Your task to perform on an android device: change your default location settings in chrome Image 0: 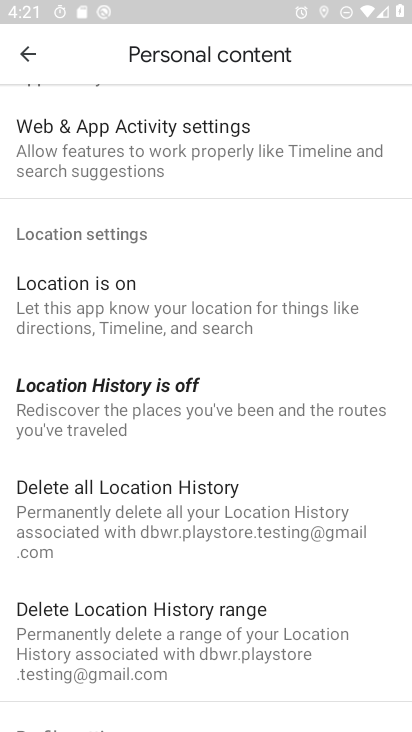
Step 0: press home button
Your task to perform on an android device: change your default location settings in chrome Image 1: 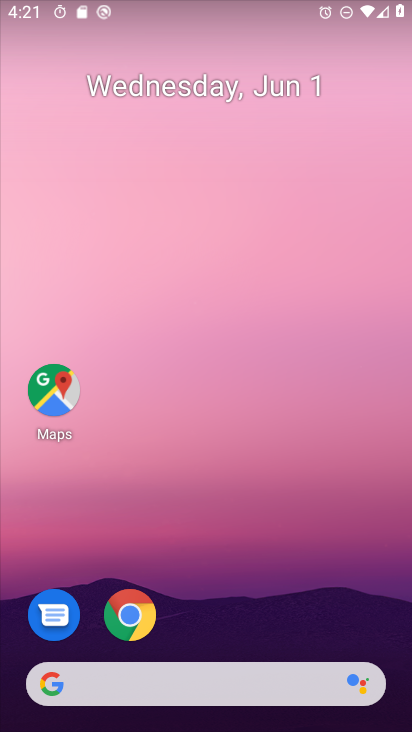
Step 1: drag from (251, 556) to (212, 171)
Your task to perform on an android device: change your default location settings in chrome Image 2: 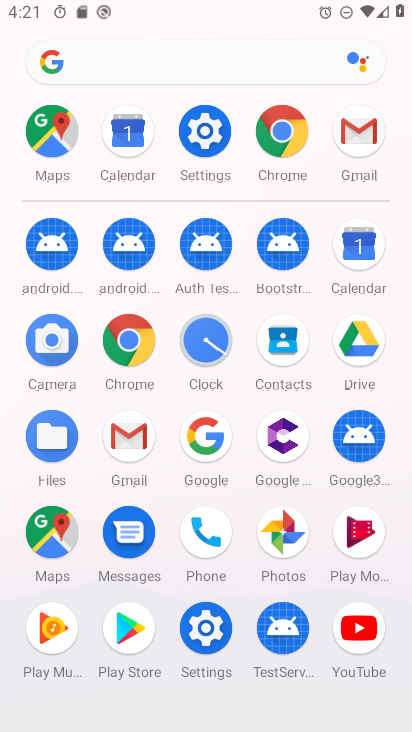
Step 2: click (284, 145)
Your task to perform on an android device: change your default location settings in chrome Image 3: 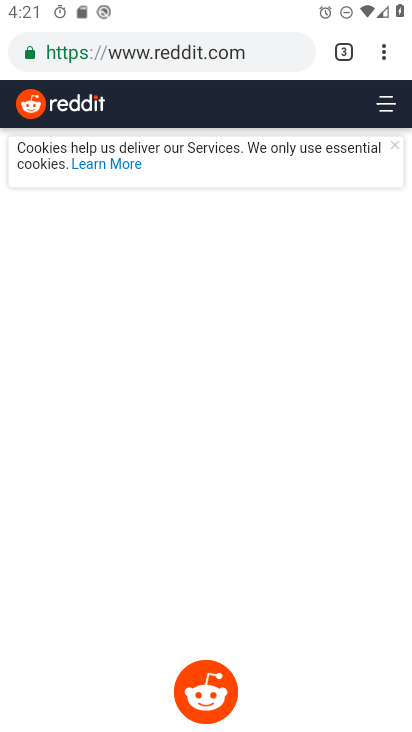
Step 3: click (383, 64)
Your task to perform on an android device: change your default location settings in chrome Image 4: 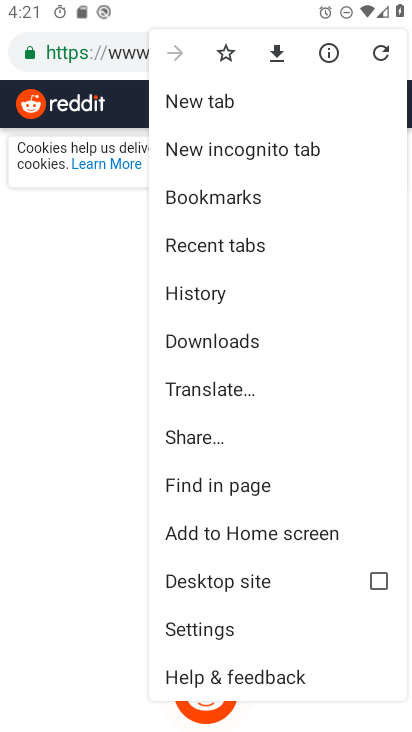
Step 4: click (238, 631)
Your task to perform on an android device: change your default location settings in chrome Image 5: 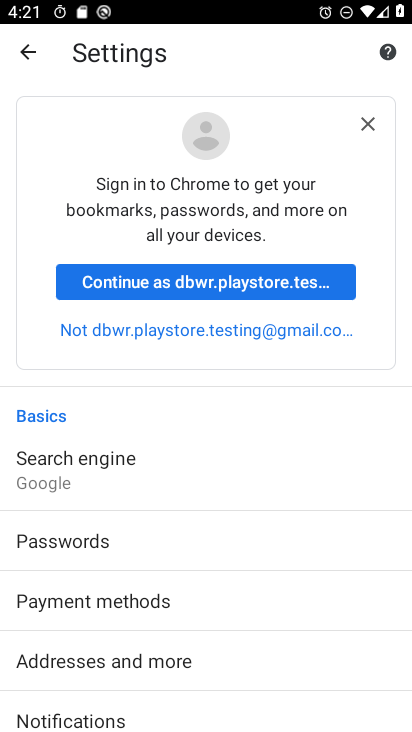
Step 5: drag from (237, 663) to (190, 358)
Your task to perform on an android device: change your default location settings in chrome Image 6: 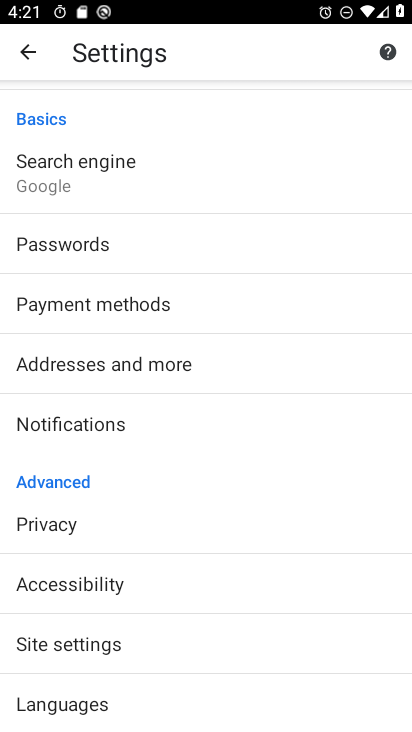
Step 6: drag from (233, 486) to (223, 217)
Your task to perform on an android device: change your default location settings in chrome Image 7: 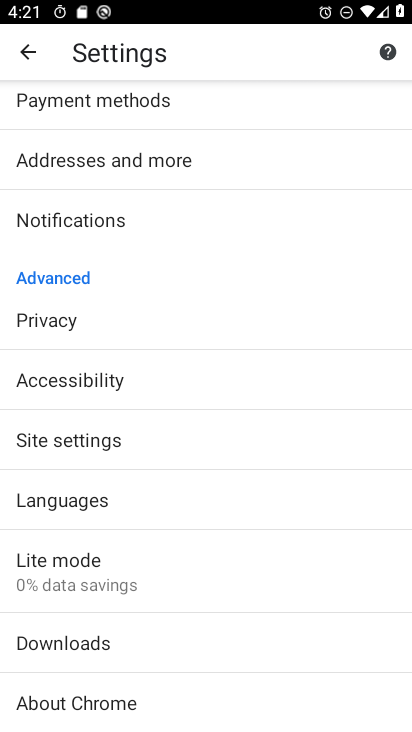
Step 7: drag from (222, 608) to (242, 273)
Your task to perform on an android device: change your default location settings in chrome Image 8: 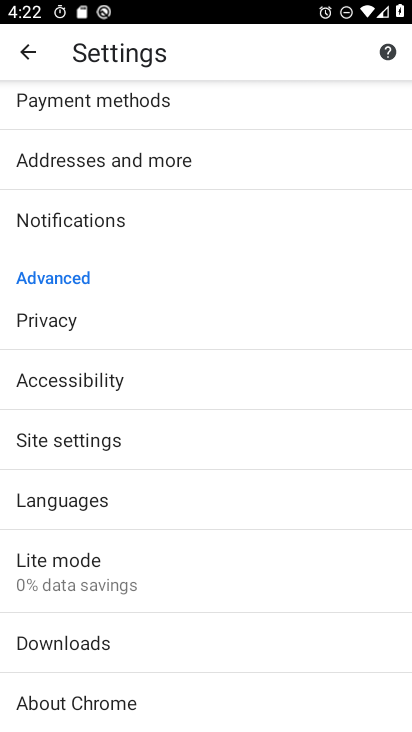
Step 8: drag from (262, 594) to (292, 225)
Your task to perform on an android device: change your default location settings in chrome Image 9: 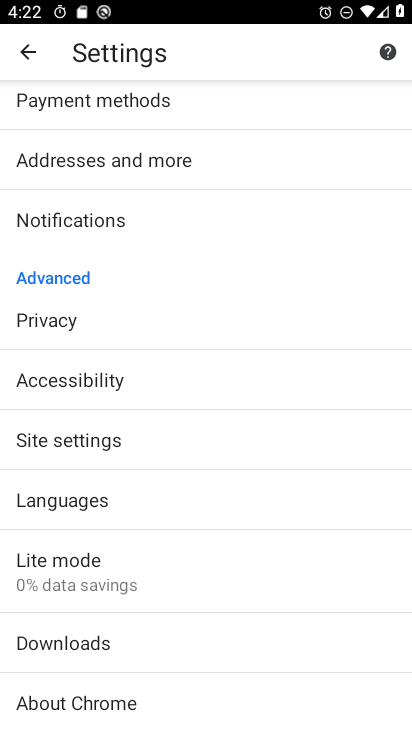
Step 9: drag from (303, 226) to (319, 153)
Your task to perform on an android device: change your default location settings in chrome Image 10: 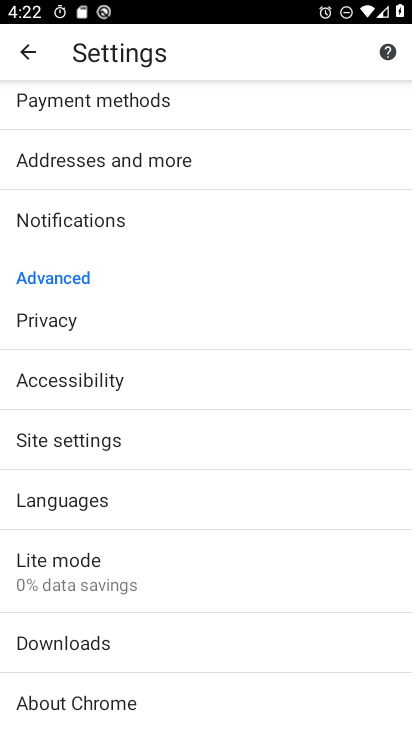
Step 10: click (184, 443)
Your task to perform on an android device: change your default location settings in chrome Image 11: 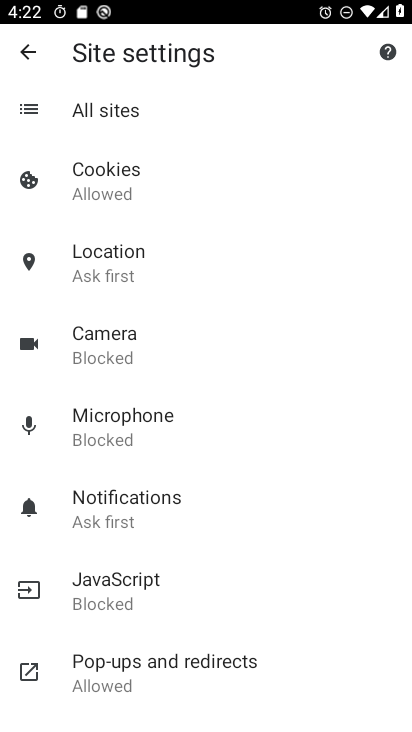
Step 11: click (146, 263)
Your task to perform on an android device: change your default location settings in chrome Image 12: 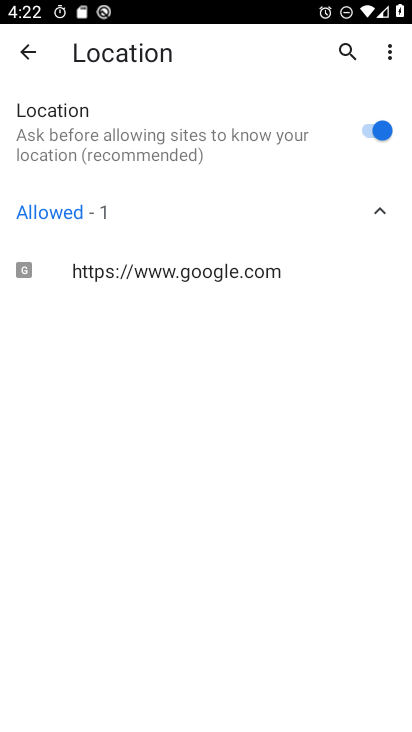
Step 12: click (370, 130)
Your task to perform on an android device: change your default location settings in chrome Image 13: 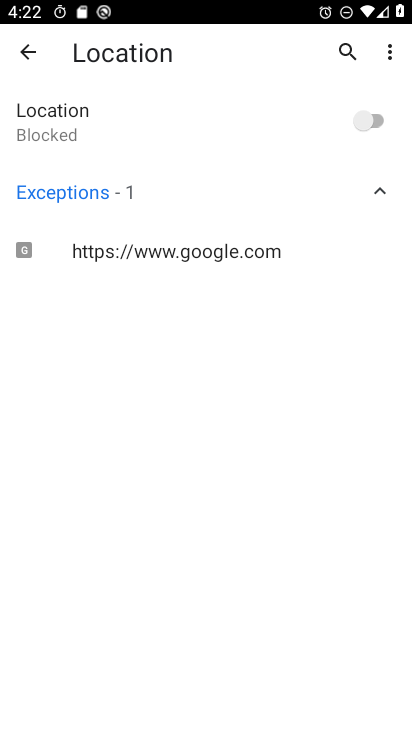
Step 13: click (391, 52)
Your task to perform on an android device: change your default location settings in chrome Image 14: 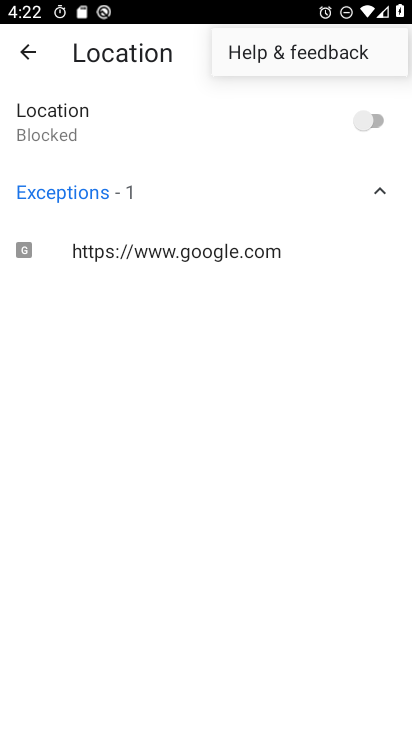
Step 14: click (266, 104)
Your task to perform on an android device: change your default location settings in chrome Image 15: 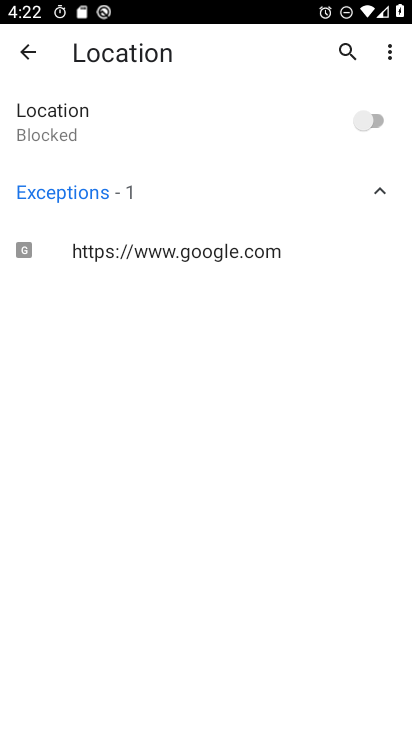
Step 15: click (29, 50)
Your task to perform on an android device: change your default location settings in chrome Image 16: 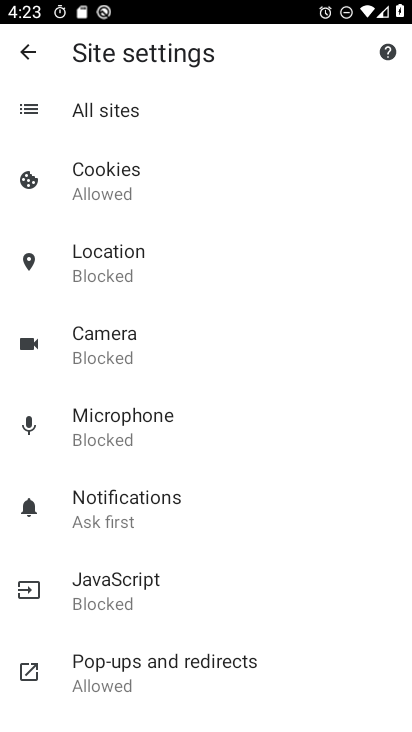
Step 16: task complete